Your task to perform on an android device: When is my next appointment? Image 0: 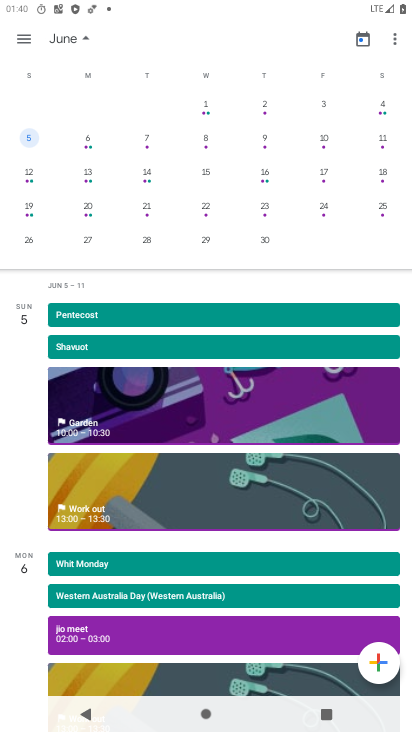
Step 0: press home button
Your task to perform on an android device: When is my next appointment? Image 1: 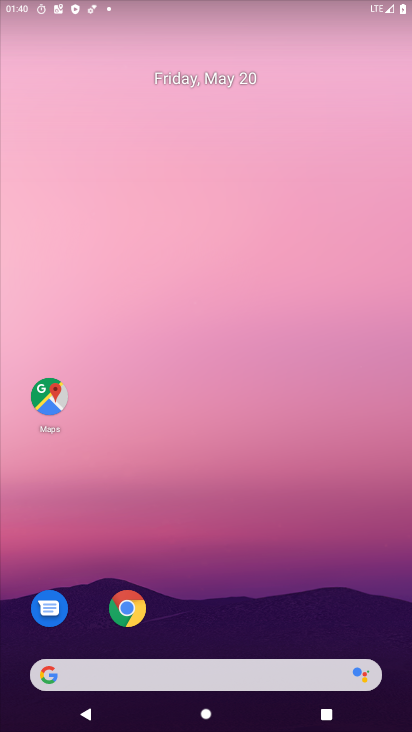
Step 1: drag from (323, 596) to (254, 143)
Your task to perform on an android device: When is my next appointment? Image 2: 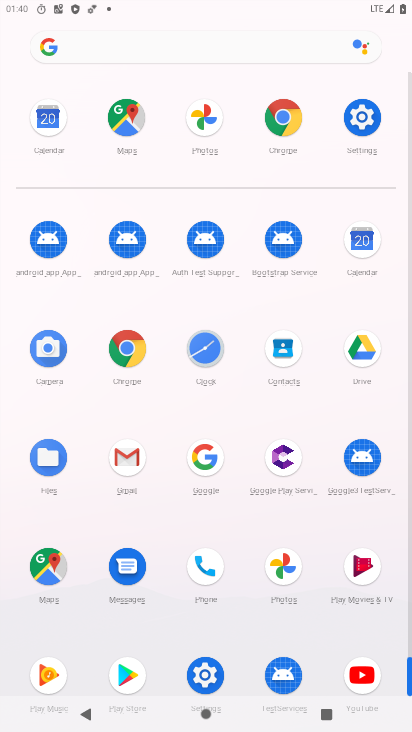
Step 2: click (369, 247)
Your task to perform on an android device: When is my next appointment? Image 3: 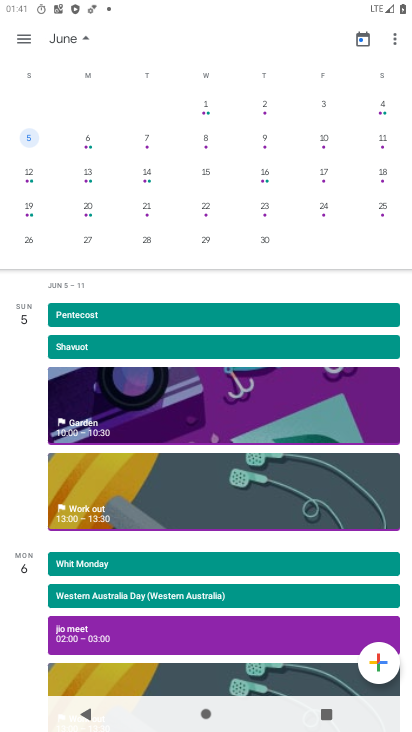
Step 3: drag from (84, 158) to (391, 163)
Your task to perform on an android device: When is my next appointment? Image 4: 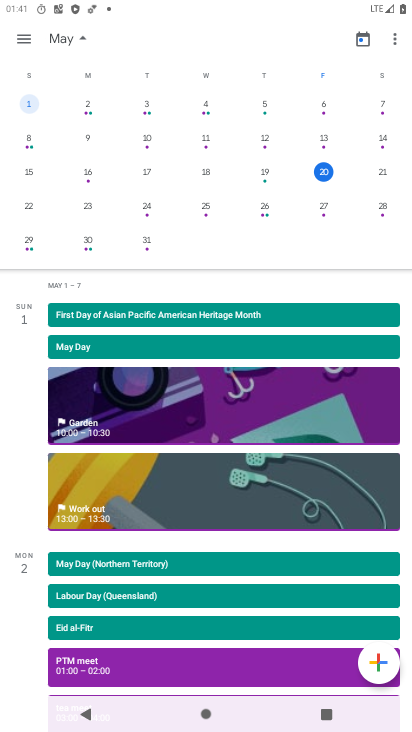
Step 4: drag from (184, 600) to (189, 430)
Your task to perform on an android device: When is my next appointment? Image 5: 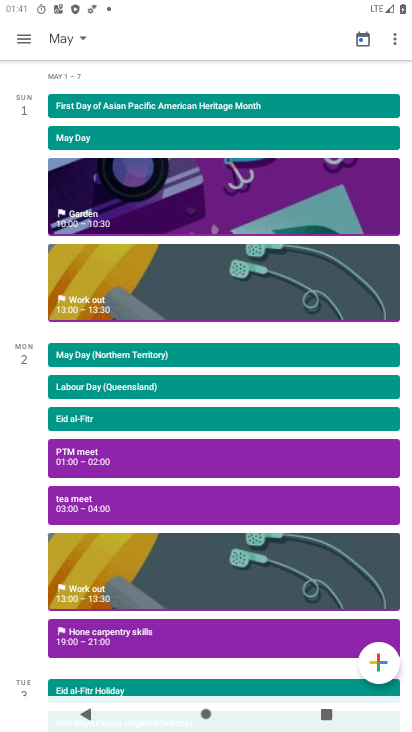
Step 5: drag from (238, 202) to (286, 585)
Your task to perform on an android device: When is my next appointment? Image 6: 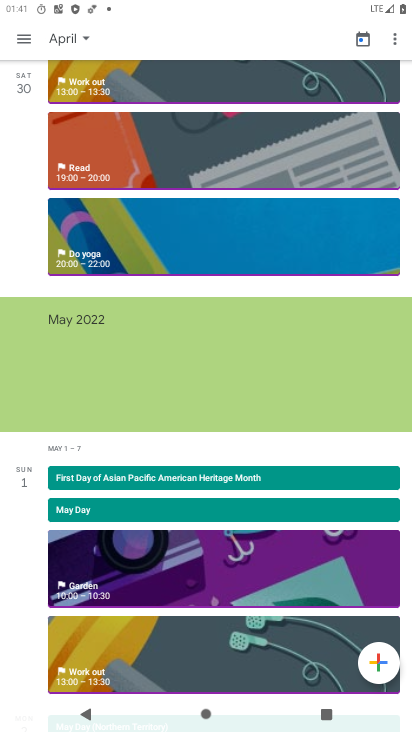
Step 6: drag from (286, 665) to (285, 343)
Your task to perform on an android device: When is my next appointment? Image 7: 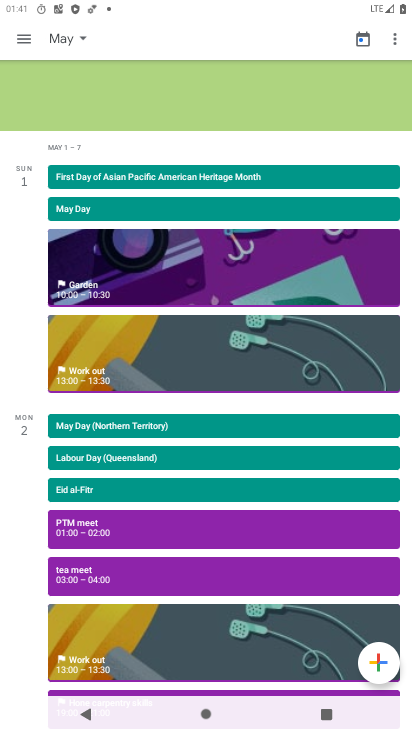
Step 7: drag from (282, 621) to (267, 507)
Your task to perform on an android device: When is my next appointment? Image 8: 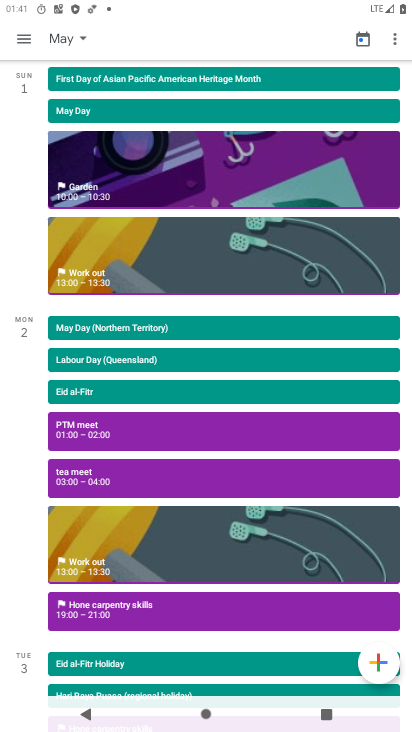
Step 8: click (86, 437)
Your task to perform on an android device: When is my next appointment? Image 9: 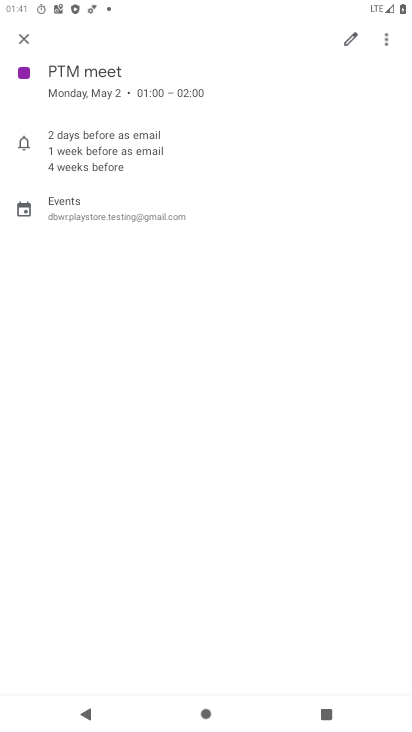
Step 9: task complete